Your task to perform on an android device: change text size in settings app Image 0: 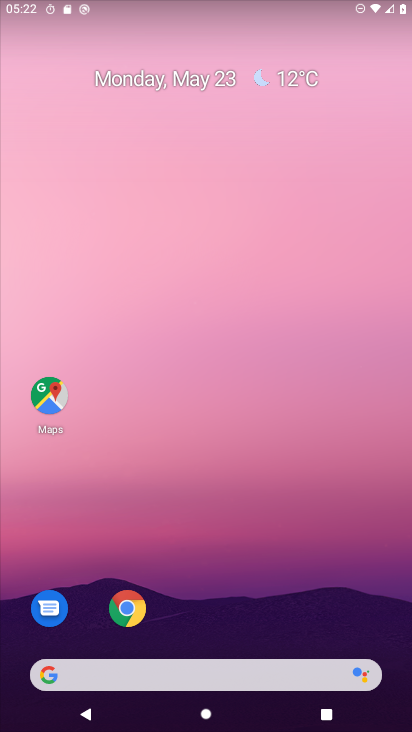
Step 0: drag from (322, 537) to (170, 1)
Your task to perform on an android device: change text size in settings app Image 1: 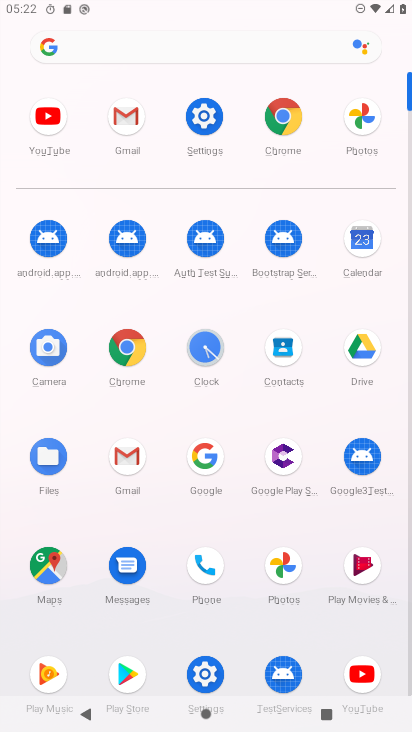
Step 1: click (196, 114)
Your task to perform on an android device: change text size in settings app Image 2: 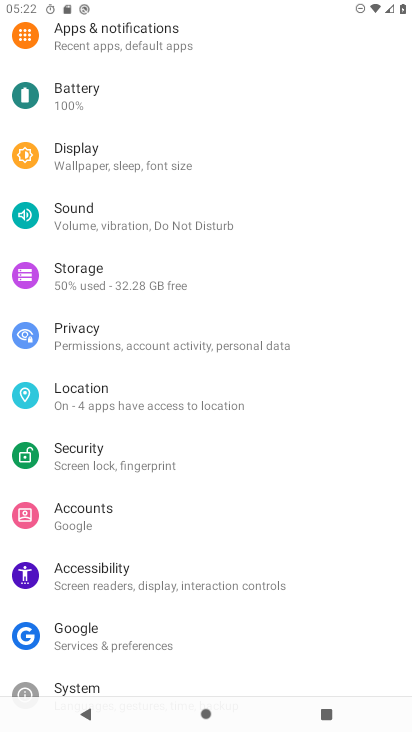
Step 2: click (178, 157)
Your task to perform on an android device: change text size in settings app Image 3: 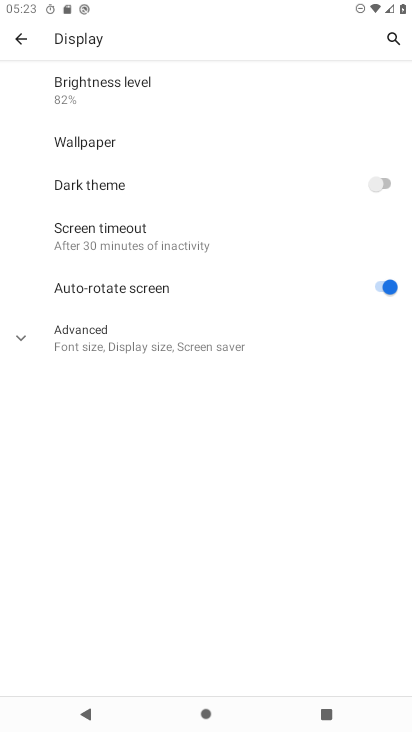
Step 3: click (133, 343)
Your task to perform on an android device: change text size in settings app Image 4: 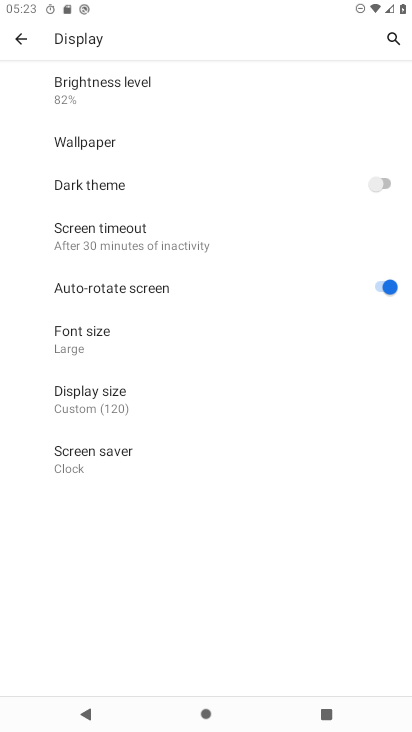
Step 4: click (154, 343)
Your task to perform on an android device: change text size in settings app Image 5: 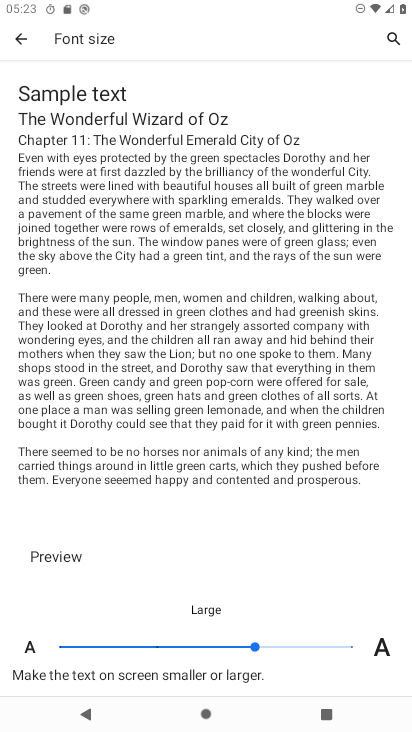
Step 5: click (347, 647)
Your task to perform on an android device: change text size in settings app Image 6: 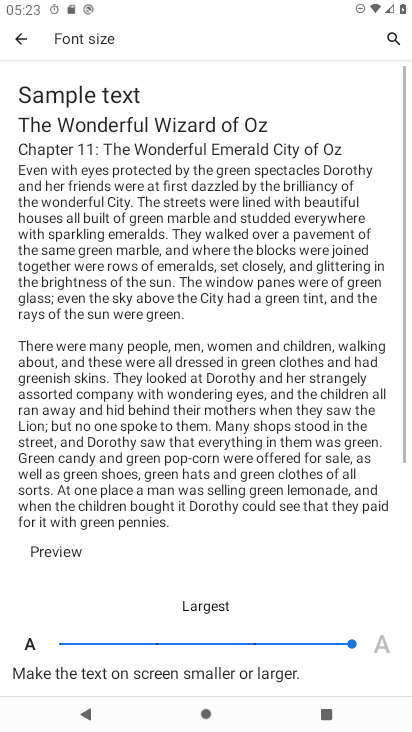
Step 6: task complete